Your task to perform on an android device: clear all cookies in the chrome app Image 0: 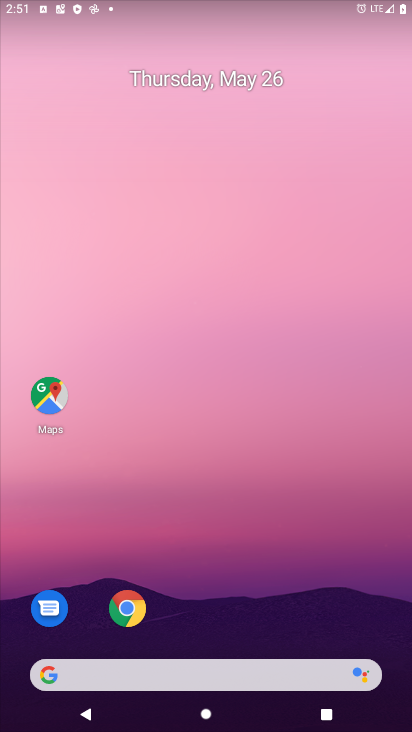
Step 0: click (127, 609)
Your task to perform on an android device: clear all cookies in the chrome app Image 1: 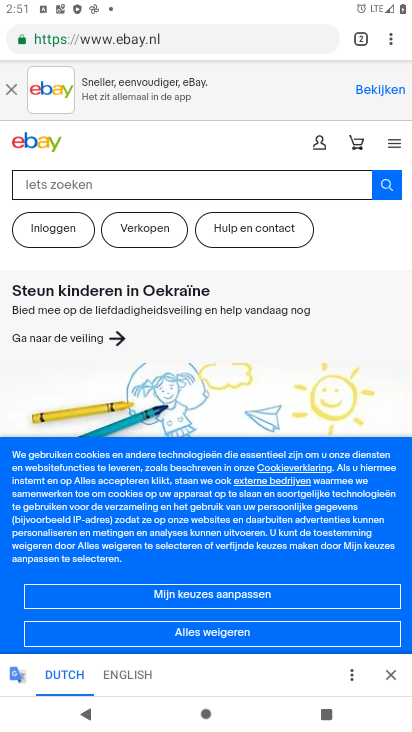
Step 1: click (388, 46)
Your task to perform on an android device: clear all cookies in the chrome app Image 2: 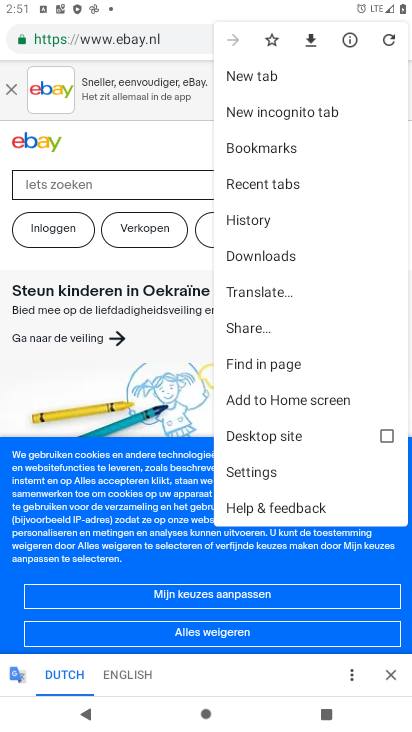
Step 2: click (257, 218)
Your task to perform on an android device: clear all cookies in the chrome app Image 3: 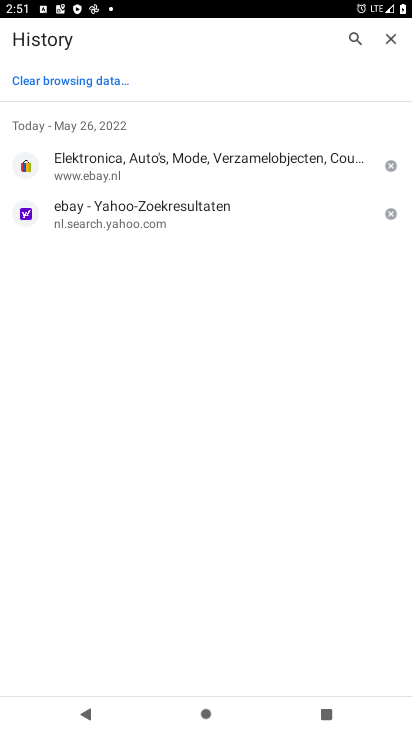
Step 3: click (76, 80)
Your task to perform on an android device: clear all cookies in the chrome app Image 4: 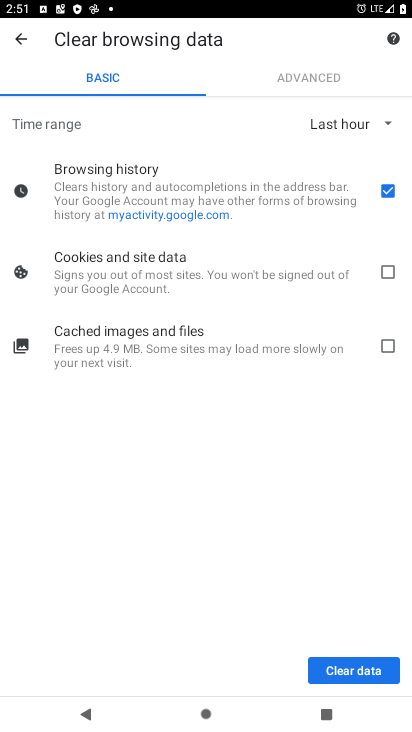
Step 4: click (388, 274)
Your task to perform on an android device: clear all cookies in the chrome app Image 5: 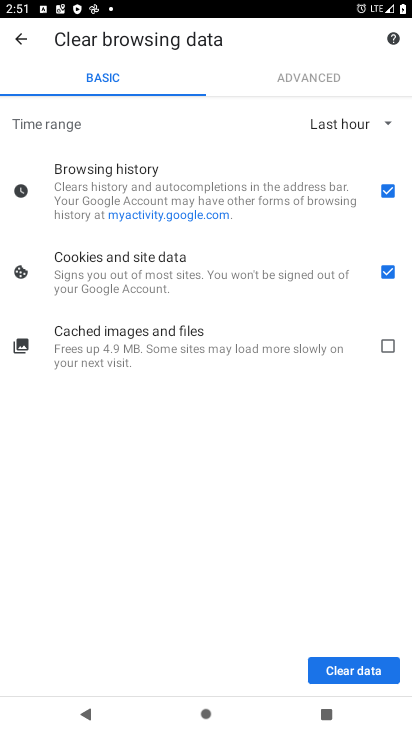
Step 5: click (387, 190)
Your task to perform on an android device: clear all cookies in the chrome app Image 6: 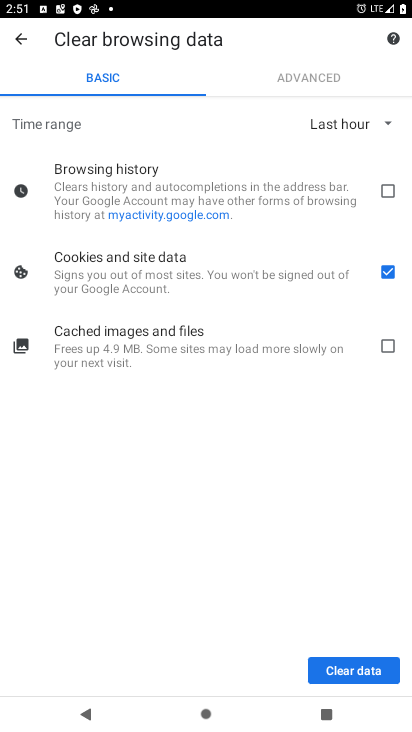
Step 6: click (350, 666)
Your task to perform on an android device: clear all cookies in the chrome app Image 7: 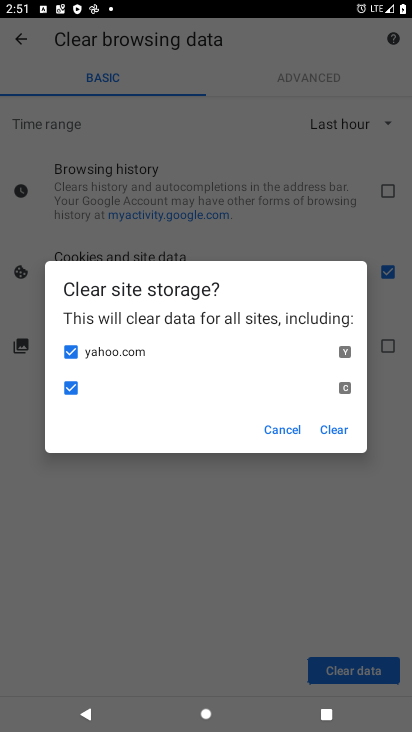
Step 7: click (337, 434)
Your task to perform on an android device: clear all cookies in the chrome app Image 8: 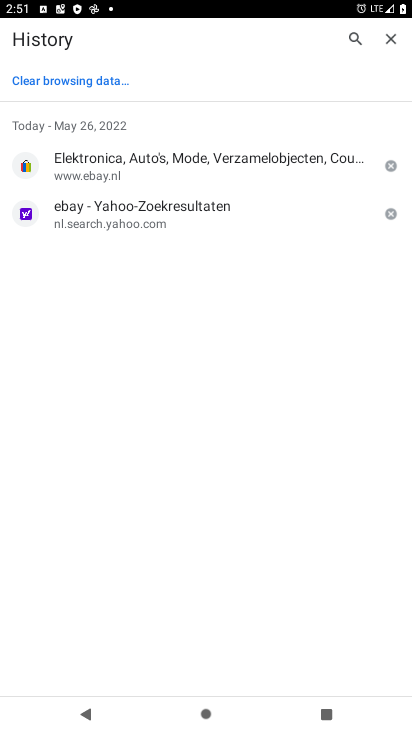
Step 8: task complete